Your task to perform on an android device: open device folders in google photos Image 0: 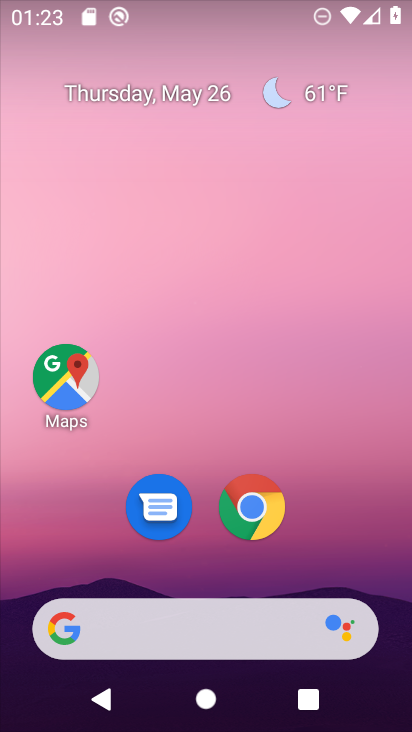
Step 0: drag from (357, 589) to (299, 88)
Your task to perform on an android device: open device folders in google photos Image 1: 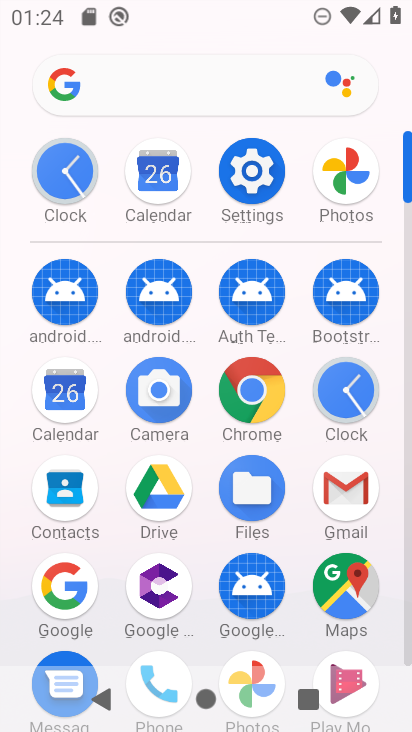
Step 1: click (334, 208)
Your task to perform on an android device: open device folders in google photos Image 2: 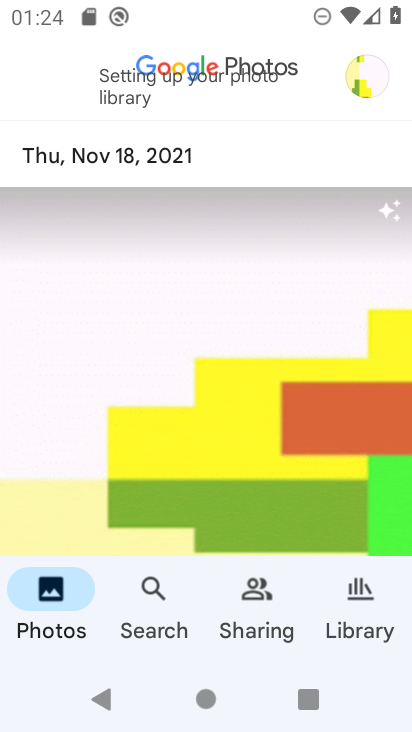
Step 2: click (361, 591)
Your task to perform on an android device: open device folders in google photos Image 3: 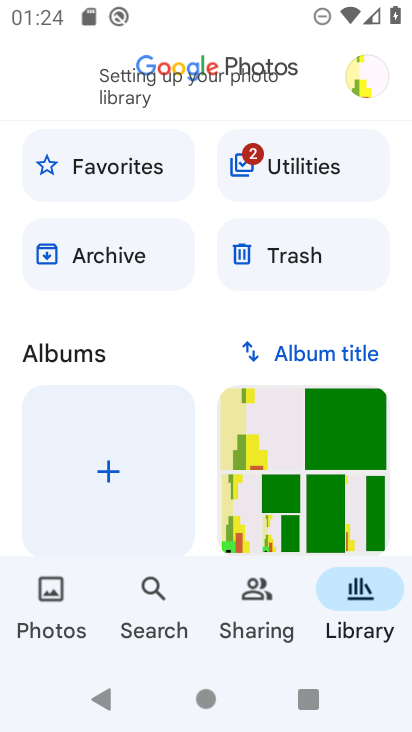
Step 3: click (273, 173)
Your task to perform on an android device: open device folders in google photos Image 4: 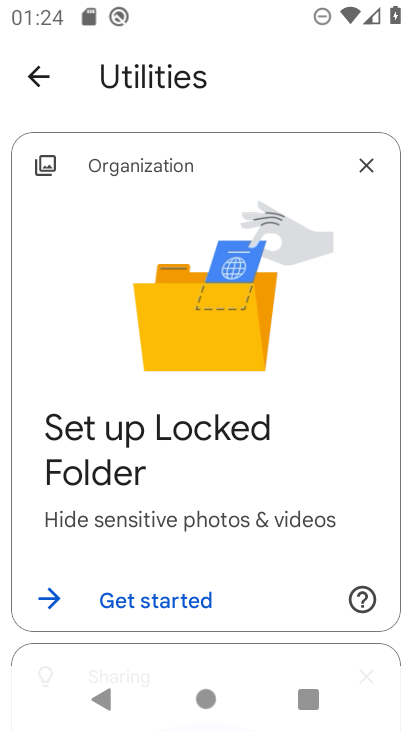
Step 4: task complete